Your task to perform on an android device: Open maps Image 0: 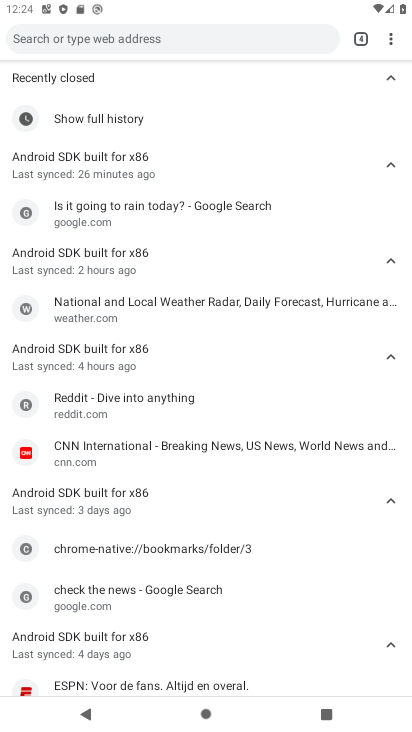
Step 0: press home button
Your task to perform on an android device: Open maps Image 1: 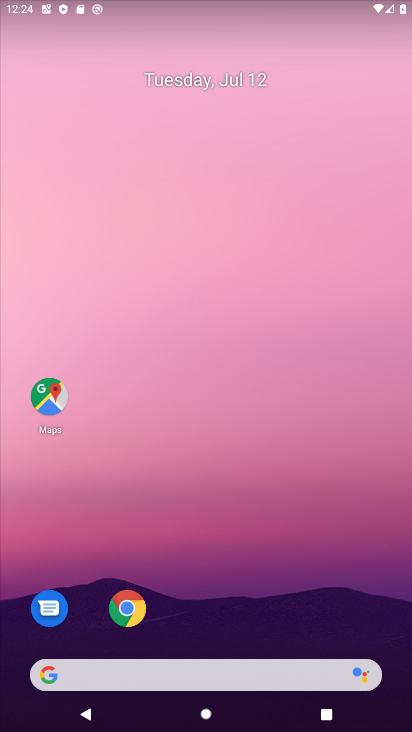
Step 1: click (37, 400)
Your task to perform on an android device: Open maps Image 2: 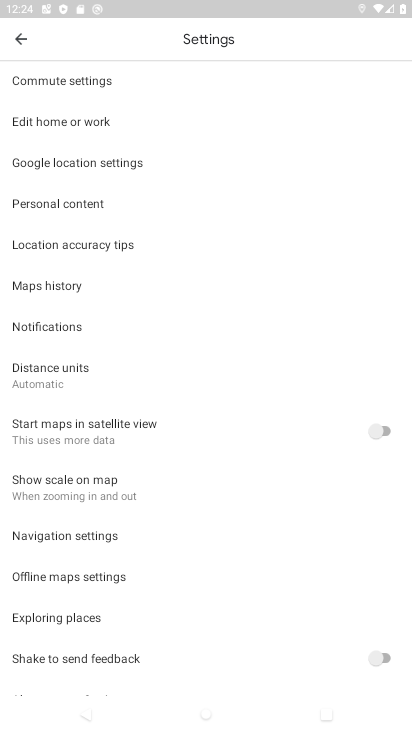
Step 2: click (26, 23)
Your task to perform on an android device: Open maps Image 3: 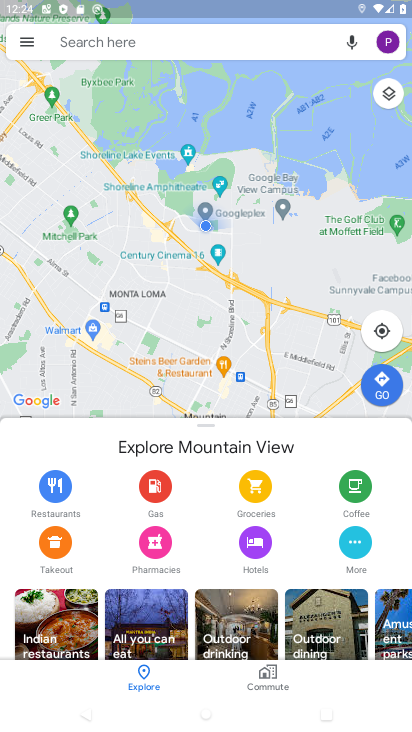
Step 3: task complete